Your task to perform on an android device: Is it going to rain this weekend? Image 0: 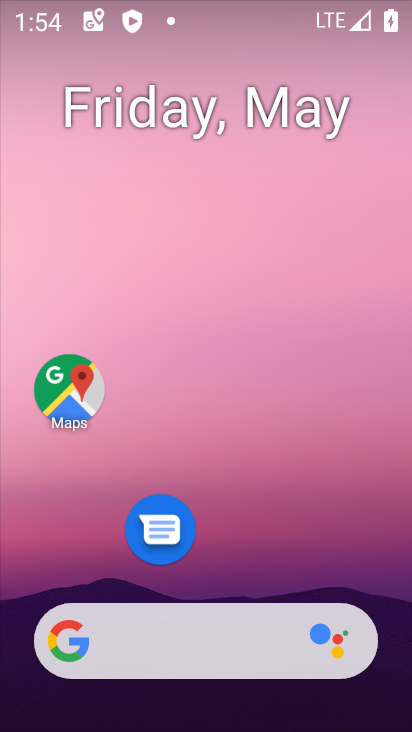
Step 0: drag from (233, 582) to (244, 144)
Your task to perform on an android device: Is it going to rain this weekend? Image 1: 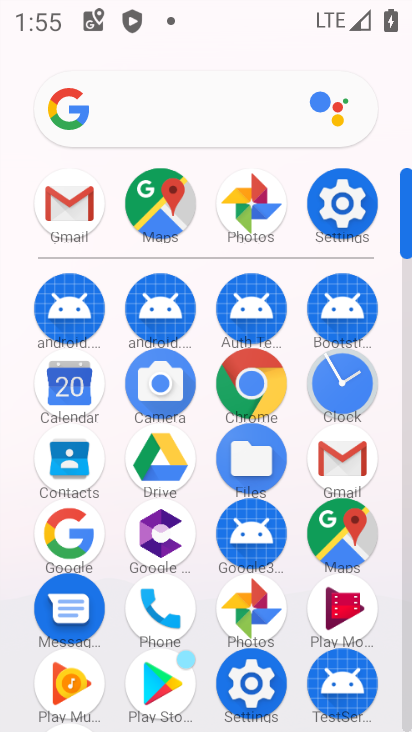
Step 1: drag from (197, 651) to (209, 299)
Your task to perform on an android device: Is it going to rain this weekend? Image 2: 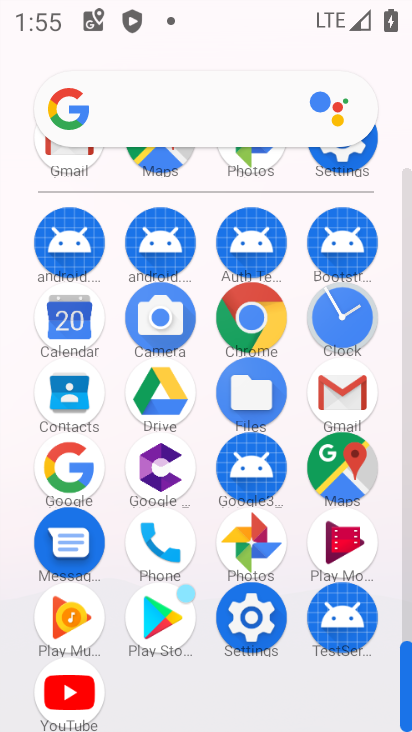
Step 2: click (153, 106)
Your task to perform on an android device: Is it going to rain this weekend? Image 3: 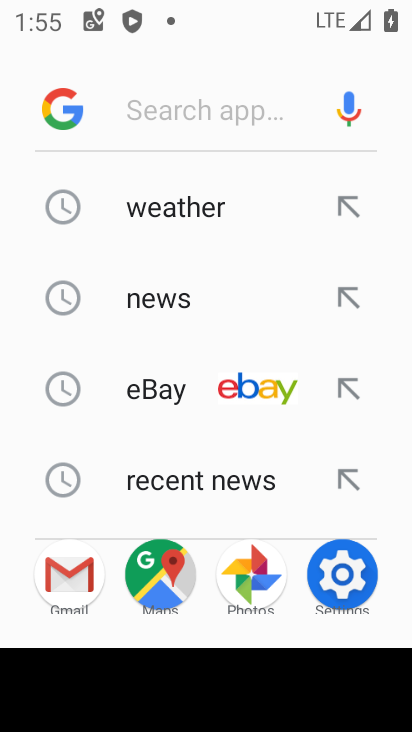
Step 3: type "rain this weekend"
Your task to perform on an android device: Is it going to rain this weekend? Image 4: 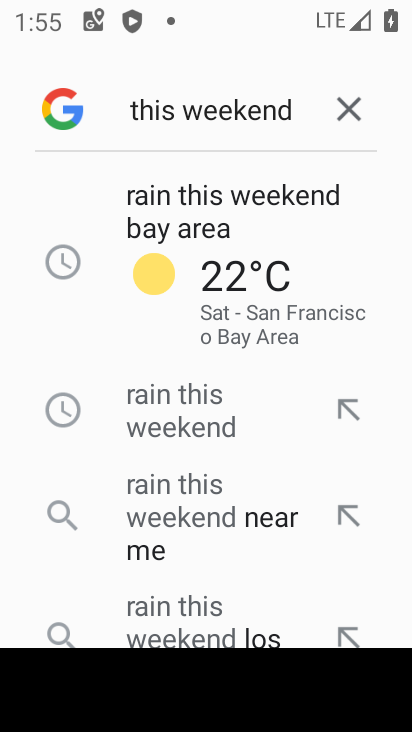
Step 4: click (207, 219)
Your task to perform on an android device: Is it going to rain this weekend? Image 5: 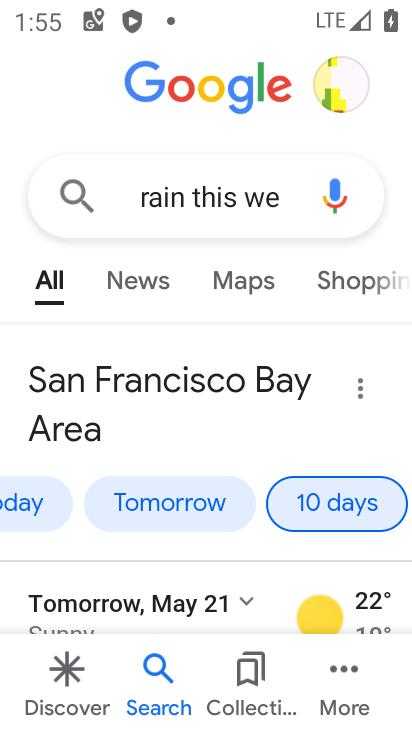
Step 5: task complete